Your task to perform on an android device: turn off priority inbox in the gmail app Image 0: 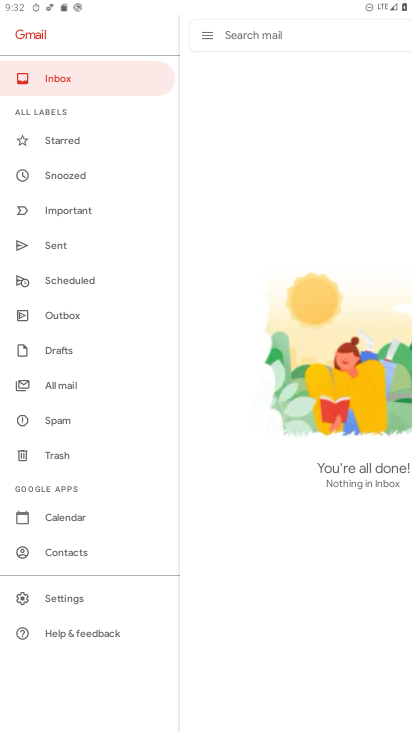
Step 0: click (62, 595)
Your task to perform on an android device: turn off priority inbox in the gmail app Image 1: 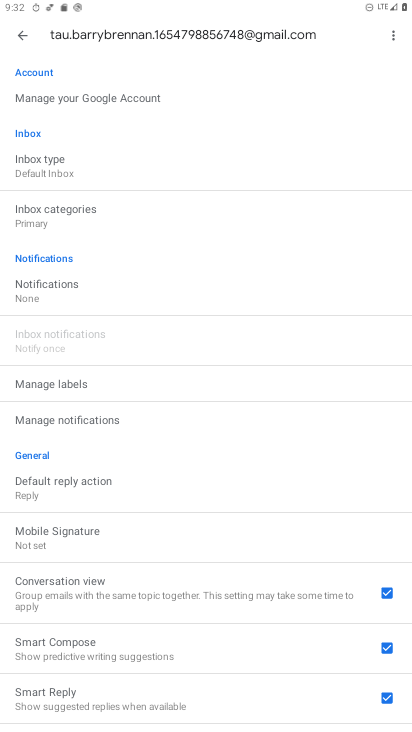
Step 1: task complete